Your task to perform on an android device: open the mobile data screen to see how much data has been used Image 0: 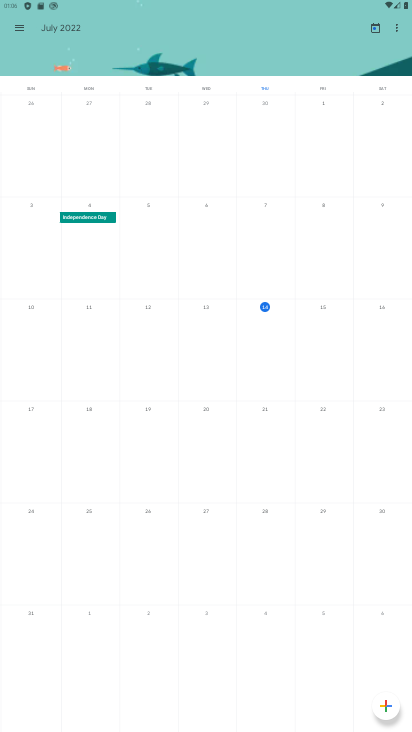
Step 0: press home button
Your task to perform on an android device: open the mobile data screen to see how much data has been used Image 1: 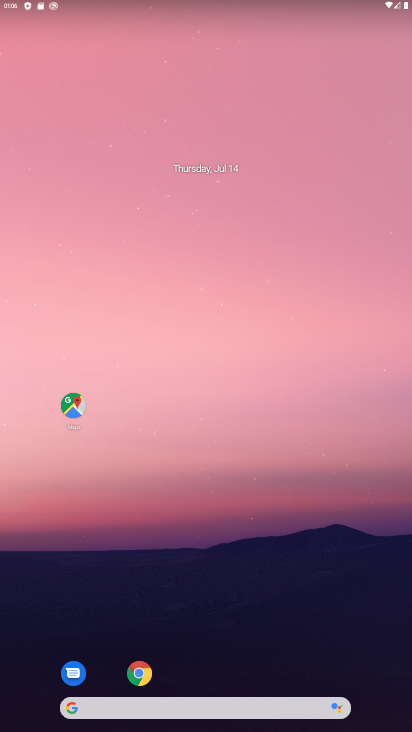
Step 1: drag from (247, 652) to (404, 462)
Your task to perform on an android device: open the mobile data screen to see how much data has been used Image 2: 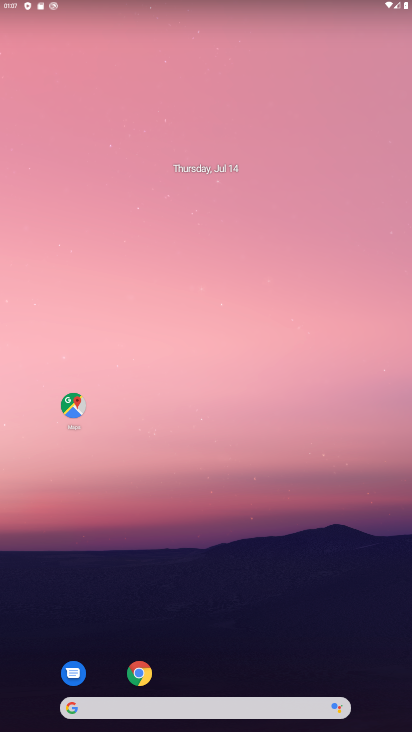
Step 2: drag from (309, 639) to (253, 69)
Your task to perform on an android device: open the mobile data screen to see how much data has been used Image 3: 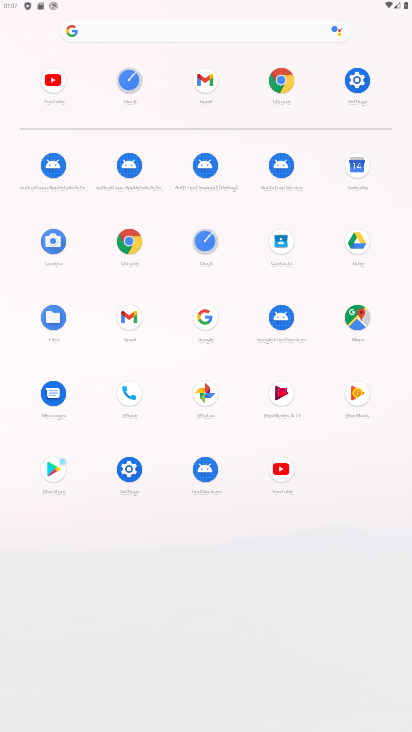
Step 3: click (363, 91)
Your task to perform on an android device: open the mobile data screen to see how much data has been used Image 4: 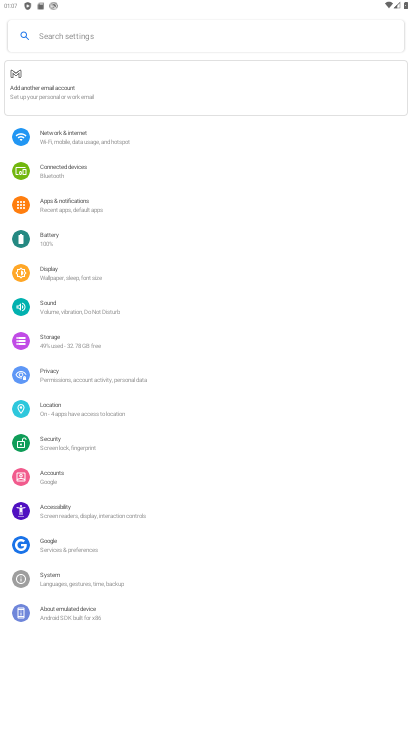
Step 4: click (133, 137)
Your task to perform on an android device: open the mobile data screen to see how much data has been used Image 5: 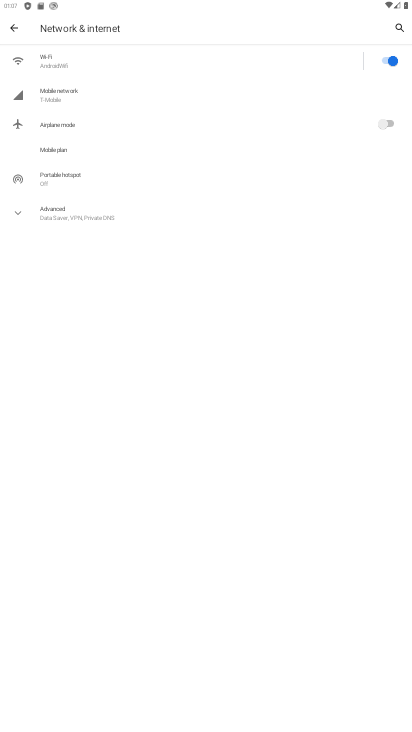
Step 5: click (136, 102)
Your task to perform on an android device: open the mobile data screen to see how much data has been used Image 6: 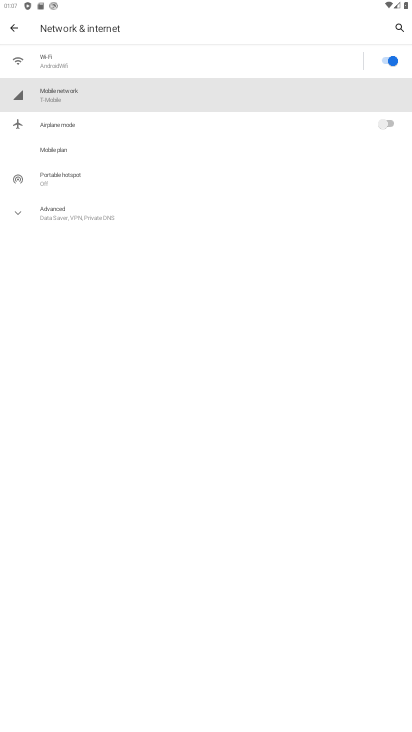
Step 6: task complete